Your task to perform on an android device: Go to Wikipedia Image 0: 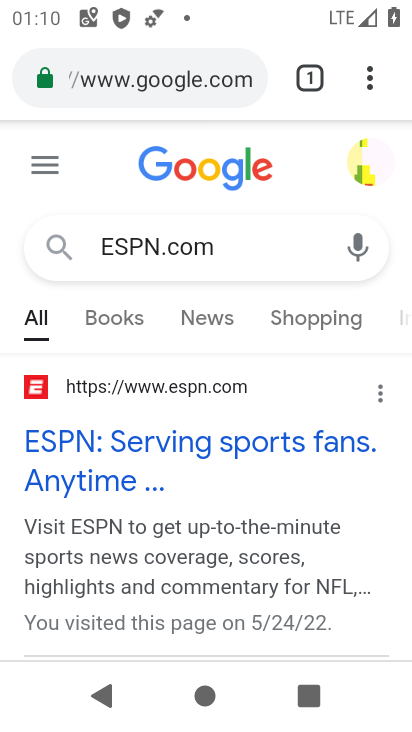
Step 0: click (194, 85)
Your task to perform on an android device: Go to Wikipedia Image 1: 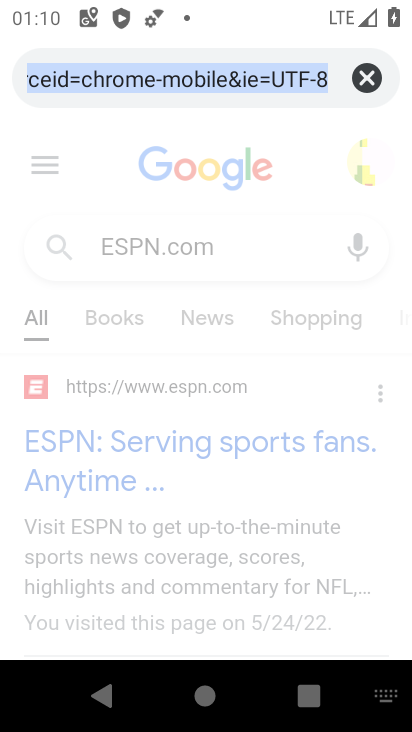
Step 1: type "wikipedia"
Your task to perform on an android device: Go to Wikipedia Image 2: 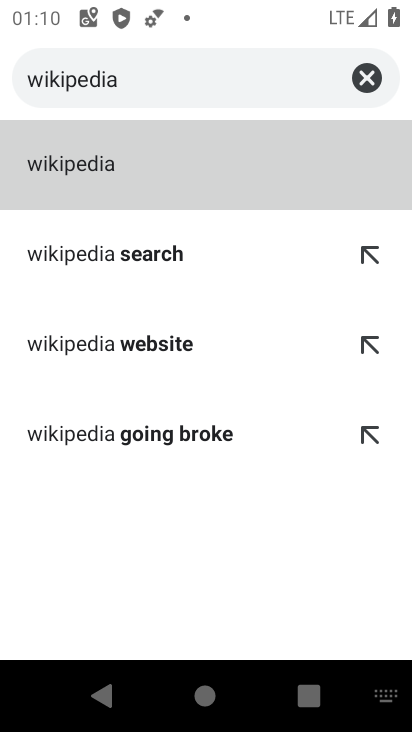
Step 2: click (131, 176)
Your task to perform on an android device: Go to Wikipedia Image 3: 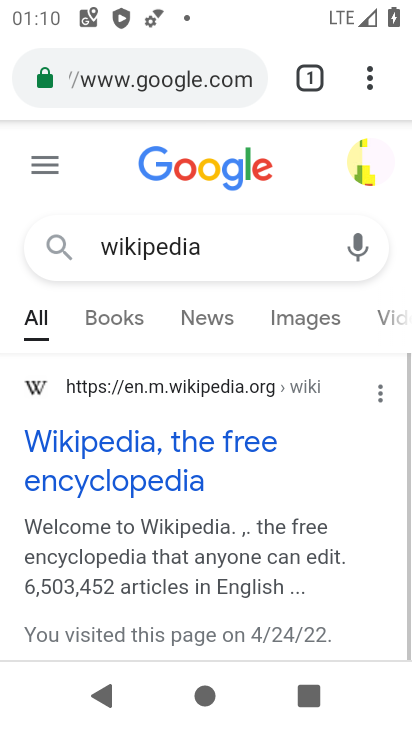
Step 3: task complete